Your task to perform on an android device: Search for the best rated headphones on amazon.com Image 0: 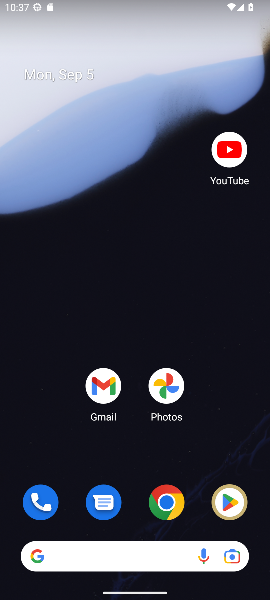
Step 0: click (74, 8)
Your task to perform on an android device: Search for the best rated headphones on amazon.com Image 1: 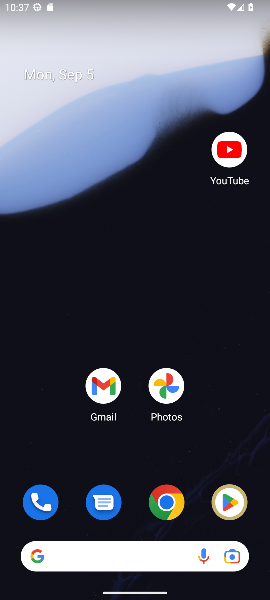
Step 1: drag from (258, 509) to (89, 0)
Your task to perform on an android device: Search for the best rated headphones on amazon.com Image 2: 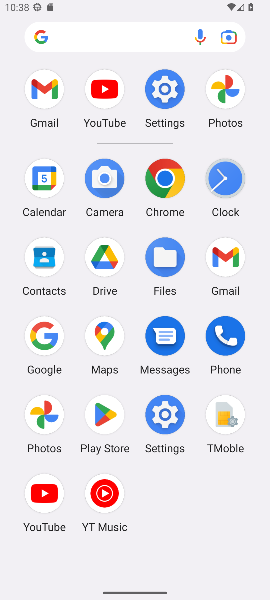
Step 2: click (47, 336)
Your task to perform on an android device: Search for the best rated headphones on amazon.com Image 3: 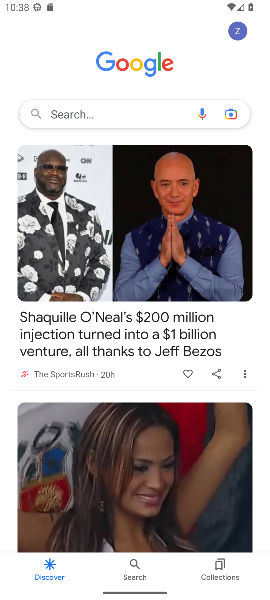
Step 3: click (63, 118)
Your task to perform on an android device: Search for the best rated headphones on amazon.com Image 4: 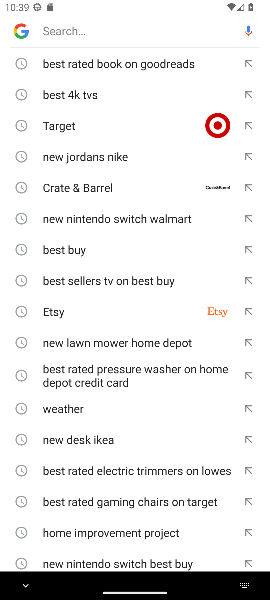
Step 4: type "best rated headphones on amazon.com"
Your task to perform on an android device: Search for the best rated headphones on amazon.com Image 5: 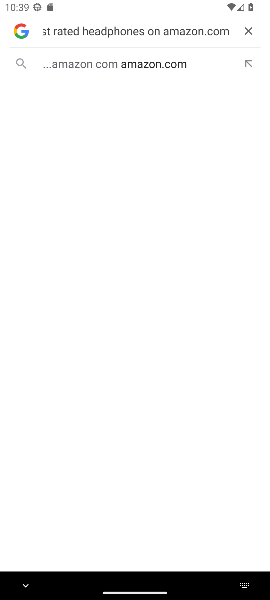
Step 5: click (139, 70)
Your task to perform on an android device: Search for the best rated headphones on amazon.com Image 6: 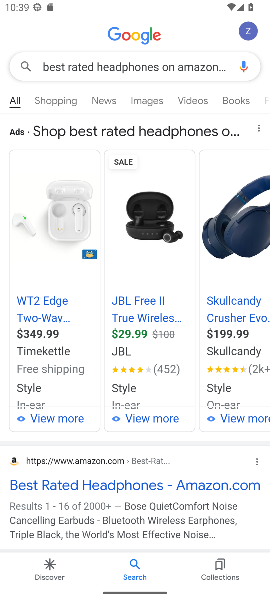
Step 6: task complete